Your task to perform on an android device: clear all cookies in the chrome app Image 0: 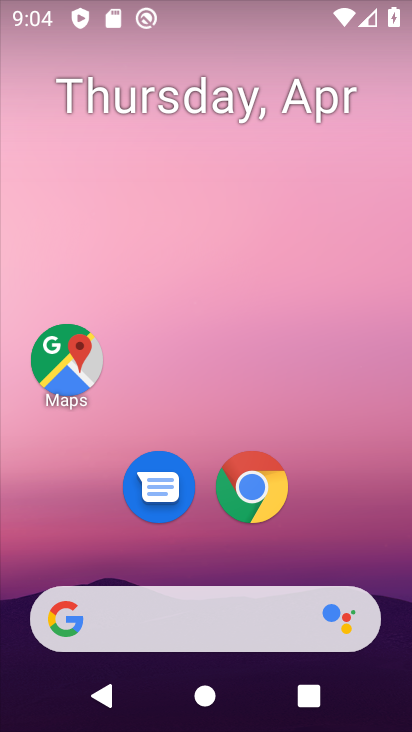
Step 0: drag from (356, 518) to (373, 93)
Your task to perform on an android device: clear all cookies in the chrome app Image 1: 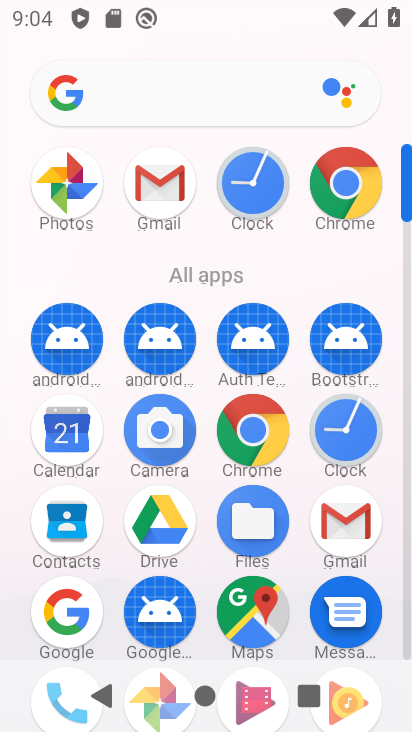
Step 1: click (227, 437)
Your task to perform on an android device: clear all cookies in the chrome app Image 2: 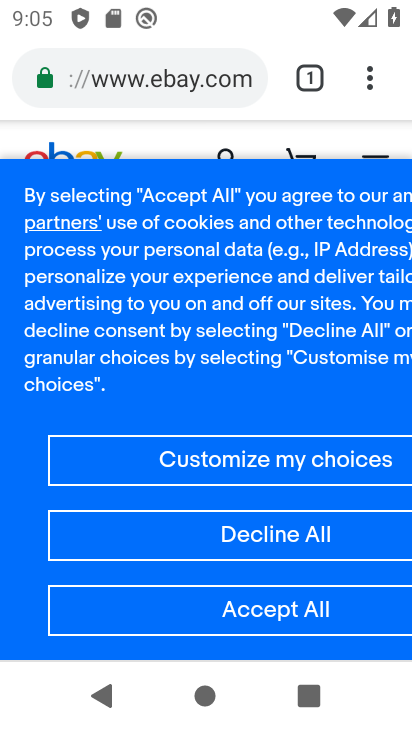
Step 2: click (374, 82)
Your task to perform on an android device: clear all cookies in the chrome app Image 3: 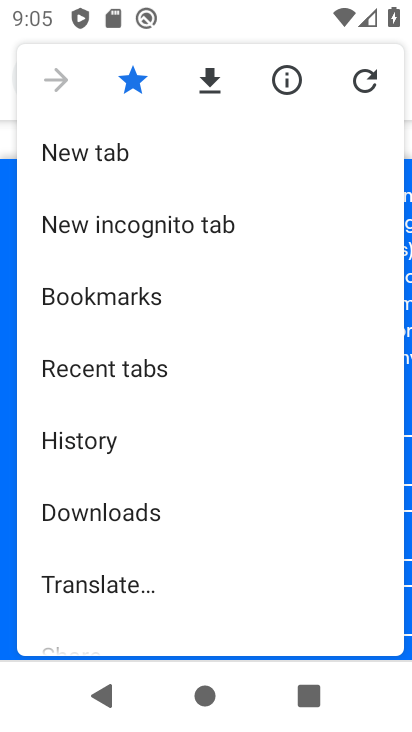
Step 3: drag from (285, 504) to (293, 316)
Your task to perform on an android device: clear all cookies in the chrome app Image 4: 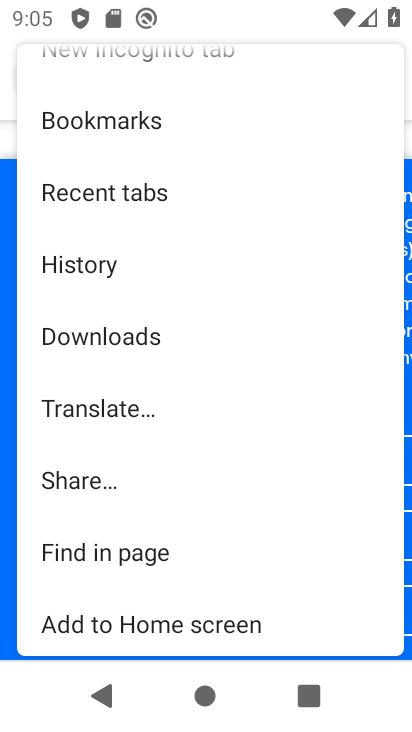
Step 4: drag from (281, 531) to (293, 205)
Your task to perform on an android device: clear all cookies in the chrome app Image 5: 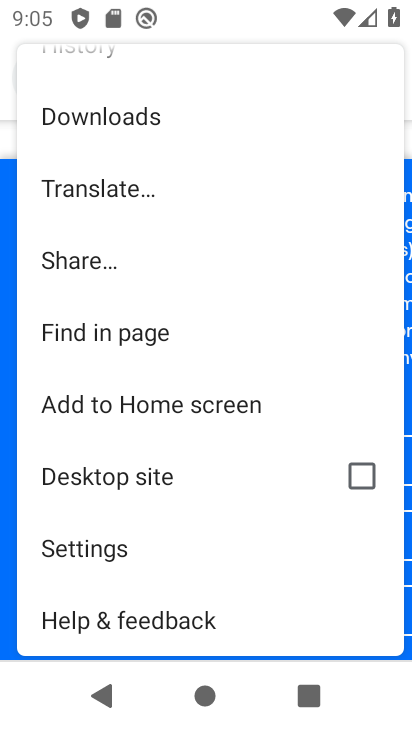
Step 5: click (104, 558)
Your task to perform on an android device: clear all cookies in the chrome app Image 6: 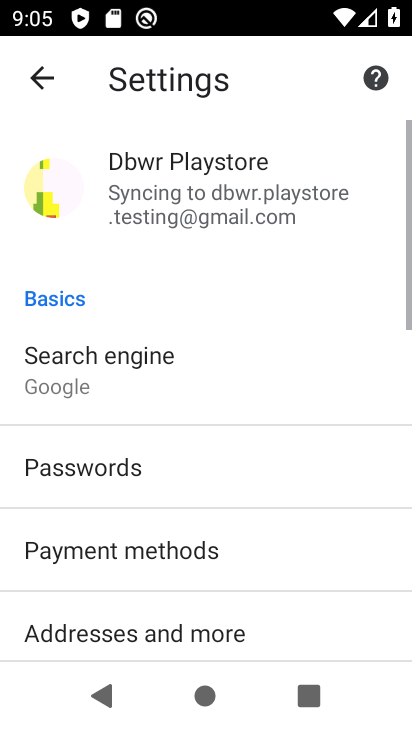
Step 6: drag from (300, 592) to (312, 363)
Your task to perform on an android device: clear all cookies in the chrome app Image 7: 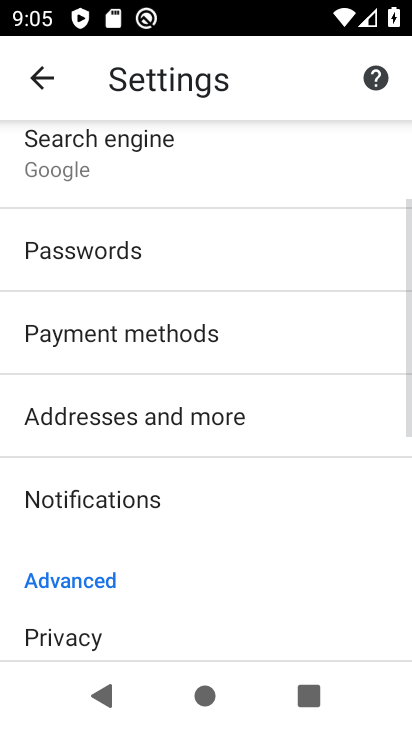
Step 7: drag from (296, 601) to (315, 369)
Your task to perform on an android device: clear all cookies in the chrome app Image 8: 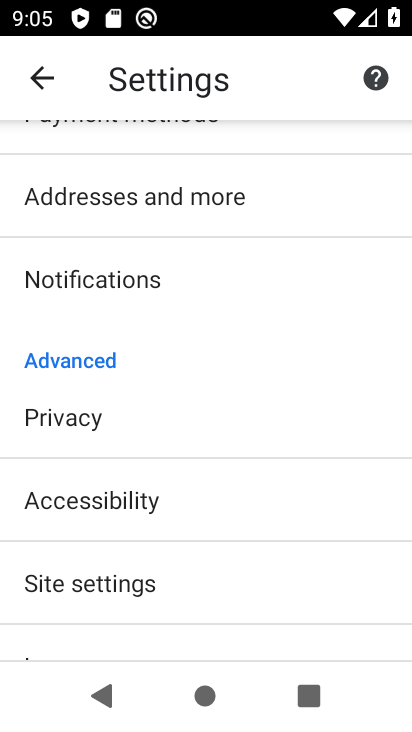
Step 8: click (145, 421)
Your task to perform on an android device: clear all cookies in the chrome app Image 9: 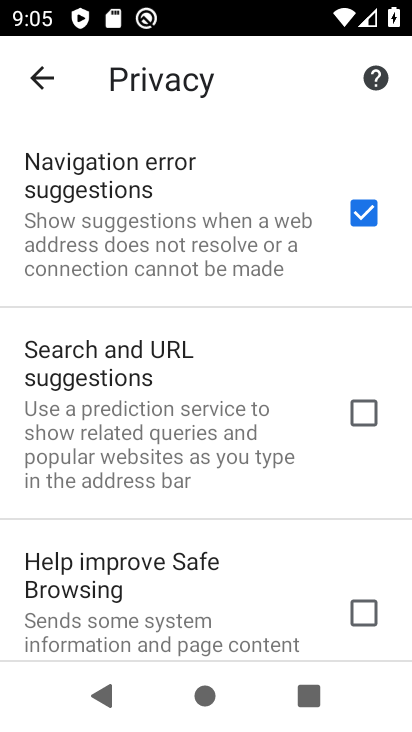
Step 9: drag from (303, 544) to (320, 359)
Your task to perform on an android device: clear all cookies in the chrome app Image 10: 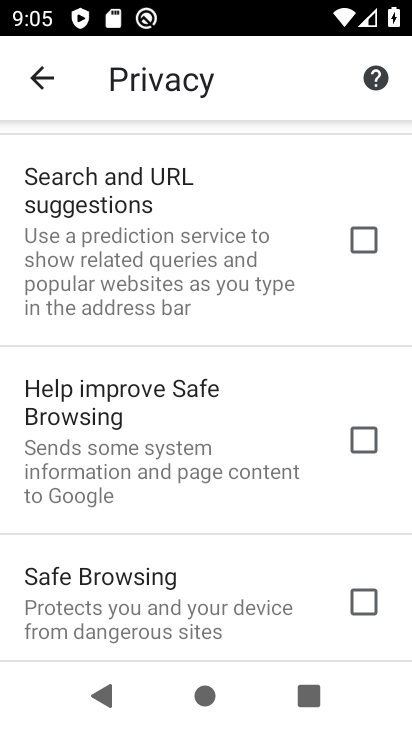
Step 10: drag from (271, 482) to (284, 302)
Your task to perform on an android device: clear all cookies in the chrome app Image 11: 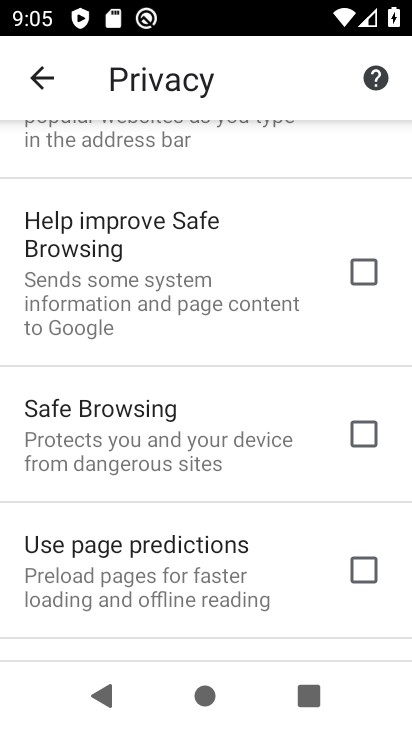
Step 11: drag from (318, 439) to (317, 346)
Your task to perform on an android device: clear all cookies in the chrome app Image 12: 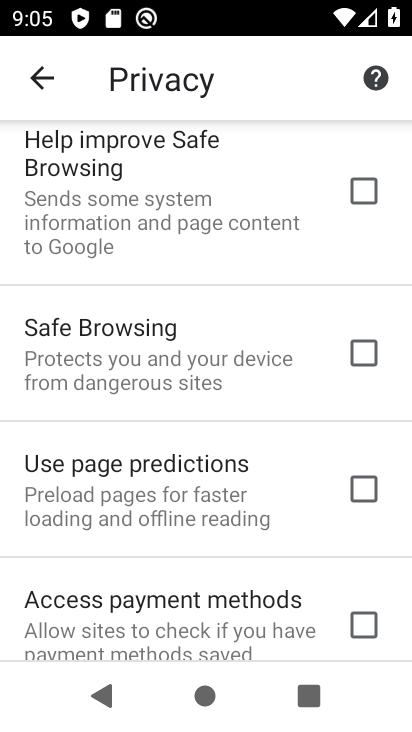
Step 12: drag from (295, 529) to (287, 325)
Your task to perform on an android device: clear all cookies in the chrome app Image 13: 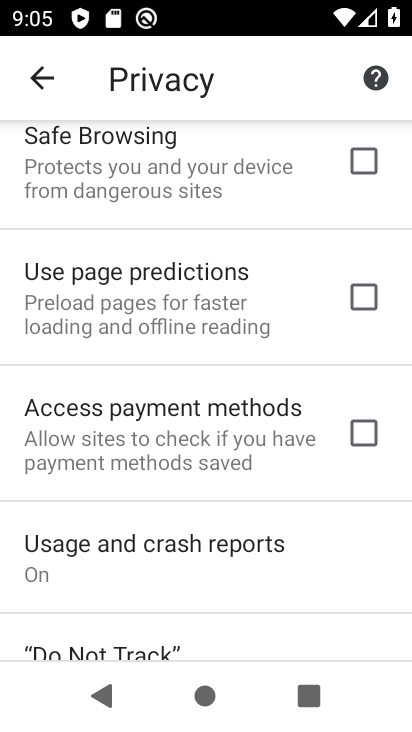
Step 13: drag from (307, 580) to (315, 329)
Your task to perform on an android device: clear all cookies in the chrome app Image 14: 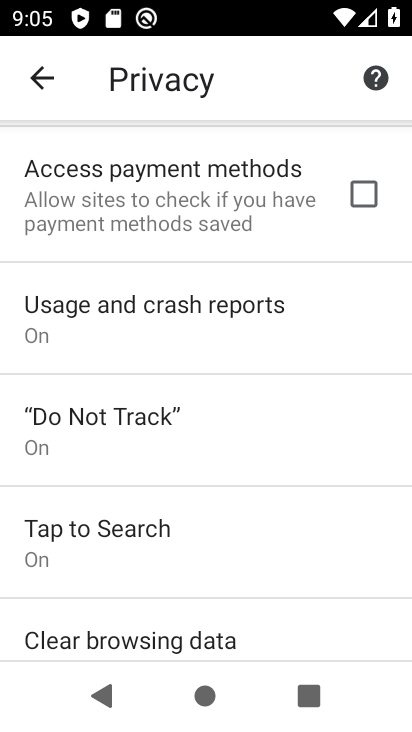
Step 14: drag from (284, 565) to (287, 374)
Your task to perform on an android device: clear all cookies in the chrome app Image 15: 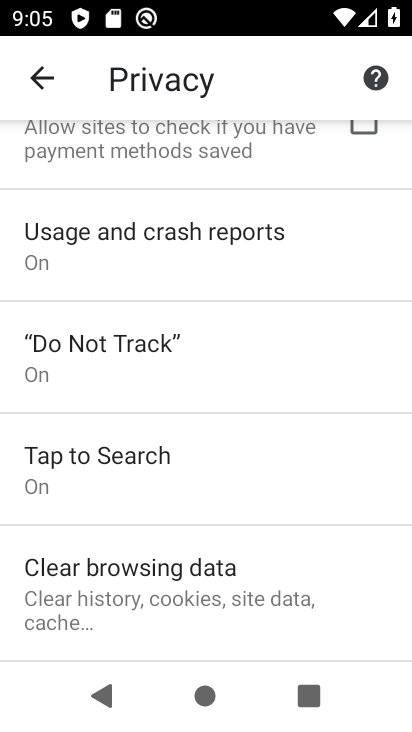
Step 15: click (219, 601)
Your task to perform on an android device: clear all cookies in the chrome app Image 16: 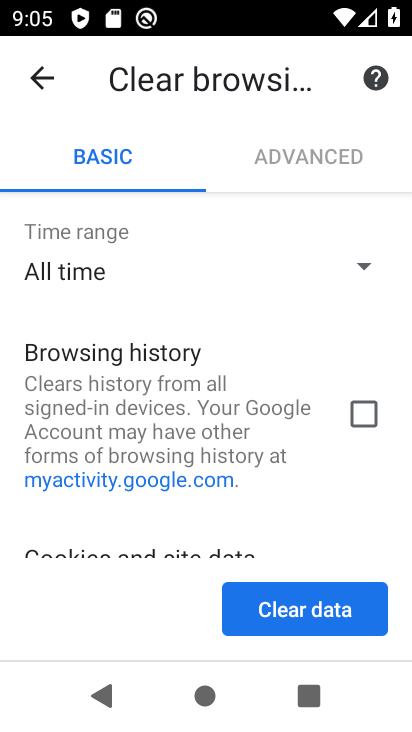
Step 16: click (356, 416)
Your task to perform on an android device: clear all cookies in the chrome app Image 17: 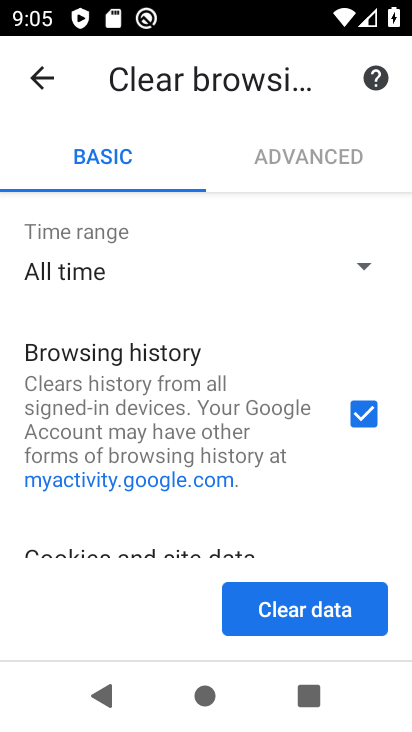
Step 17: click (313, 617)
Your task to perform on an android device: clear all cookies in the chrome app Image 18: 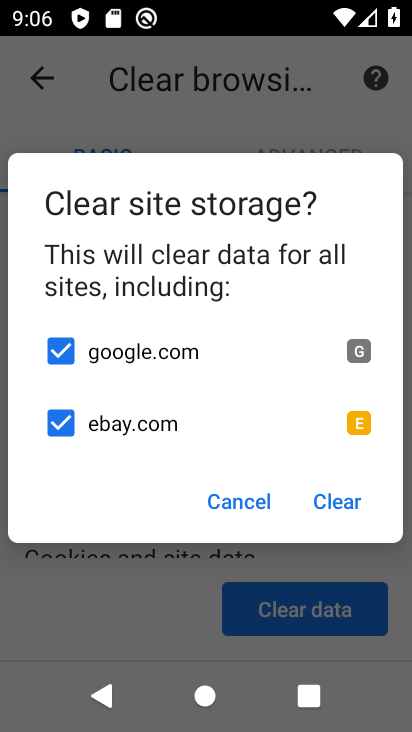
Step 18: click (336, 507)
Your task to perform on an android device: clear all cookies in the chrome app Image 19: 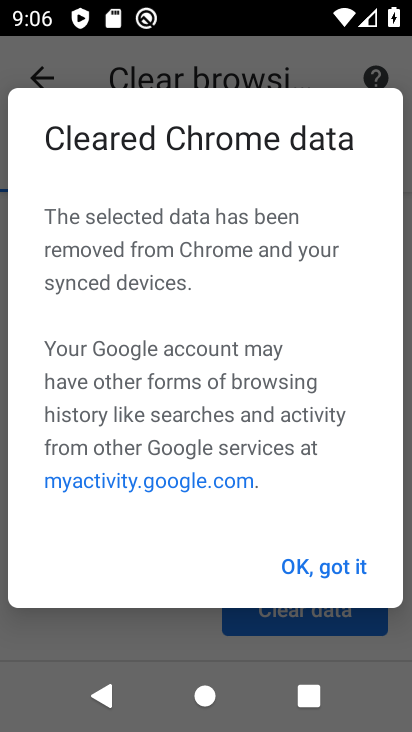
Step 19: click (334, 570)
Your task to perform on an android device: clear all cookies in the chrome app Image 20: 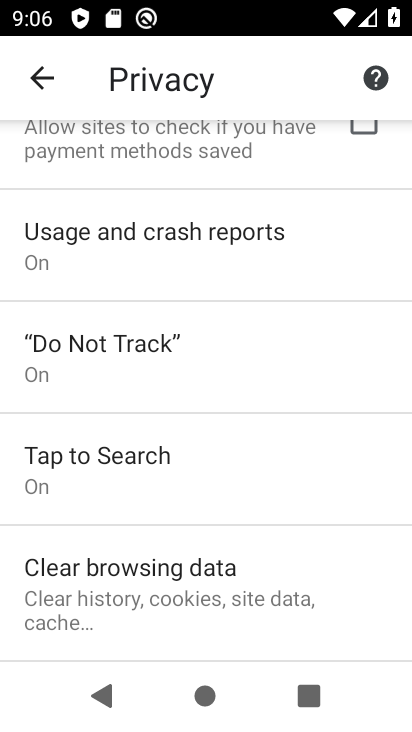
Step 20: task complete